Your task to perform on an android device: Open the Play Movies app and select the watchlist tab. Image 0: 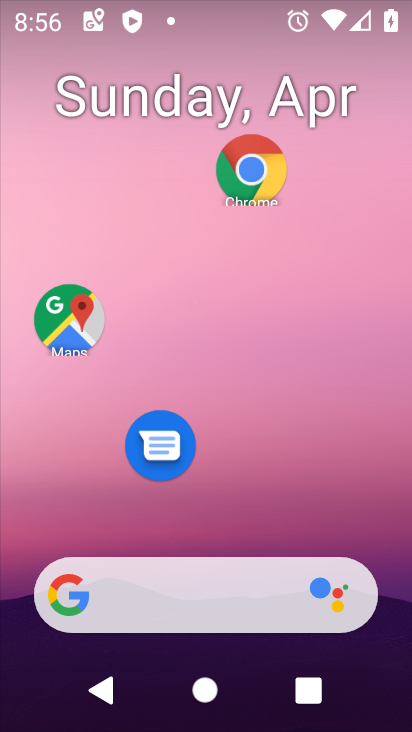
Step 0: drag from (254, 511) to (184, 27)
Your task to perform on an android device: Open the Play Movies app and select the watchlist tab. Image 1: 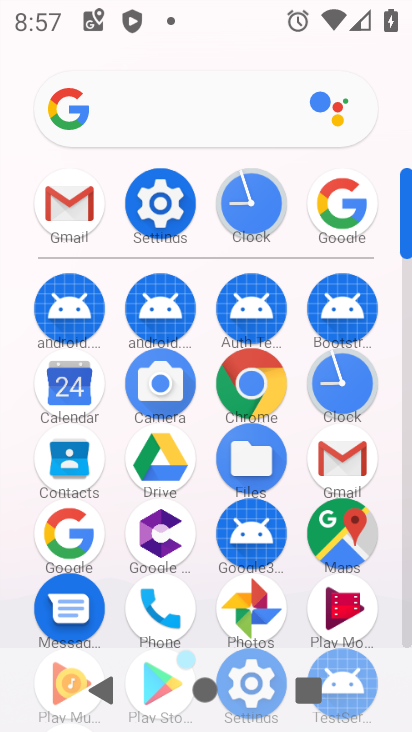
Step 1: click (344, 610)
Your task to perform on an android device: Open the Play Movies app and select the watchlist tab. Image 2: 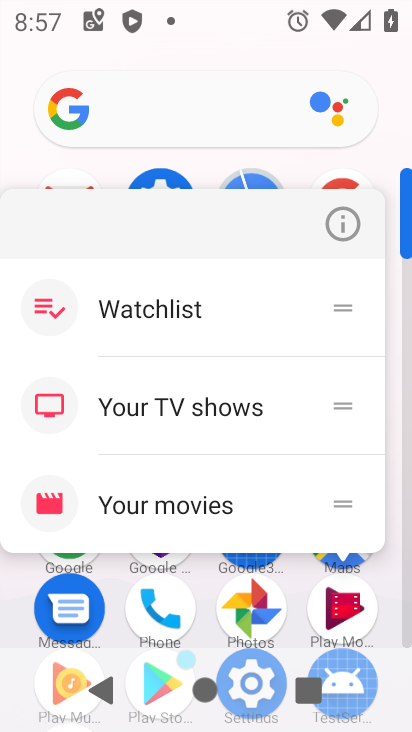
Step 2: click (344, 610)
Your task to perform on an android device: Open the Play Movies app and select the watchlist tab. Image 3: 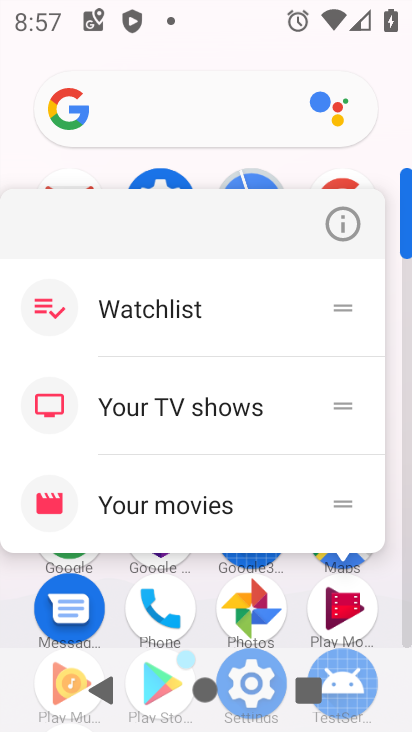
Step 3: click (346, 611)
Your task to perform on an android device: Open the Play Movies app and select the watchlist tab. Image 4: 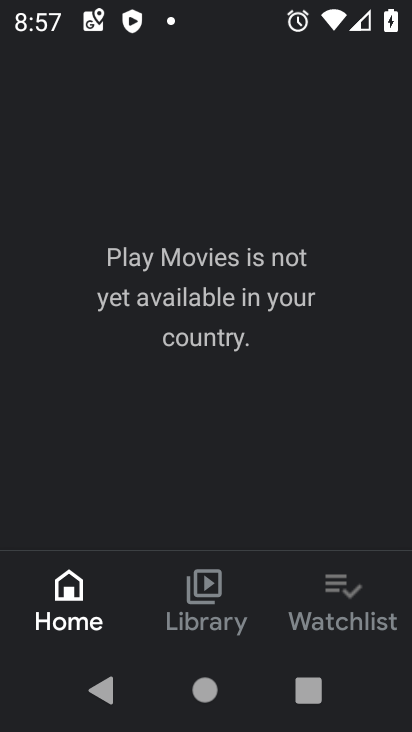
Step 4: click (343, 608)
Your task to perform on an android device: Open the Play Movies app and select the watchlist tab. Image 5: 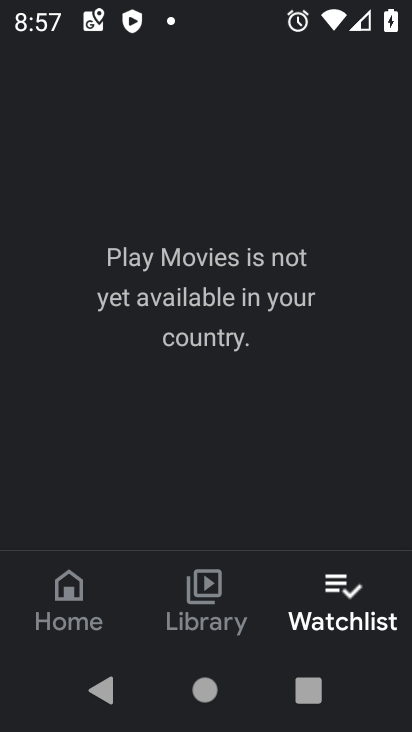
Step 5: task complete